Your task to perform on an android device: check data usage Image 0: 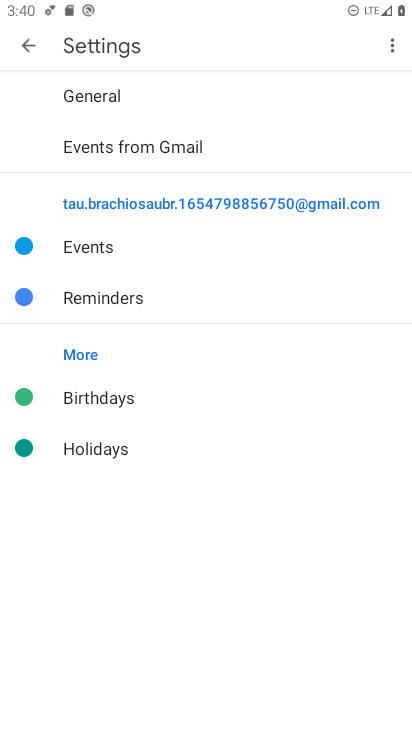
Step 0: press home button
Your task to perform on an android device: check data usage Image 1: 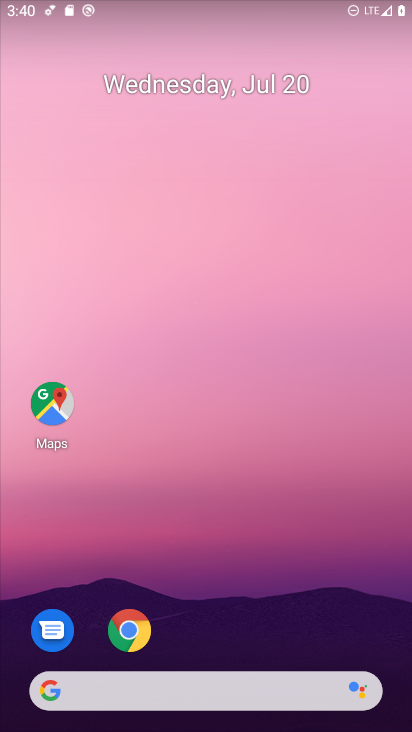
Step 1: drag from (220, 427) to (219, 30)
Your task to perform on an android device: check data usage Image 2: 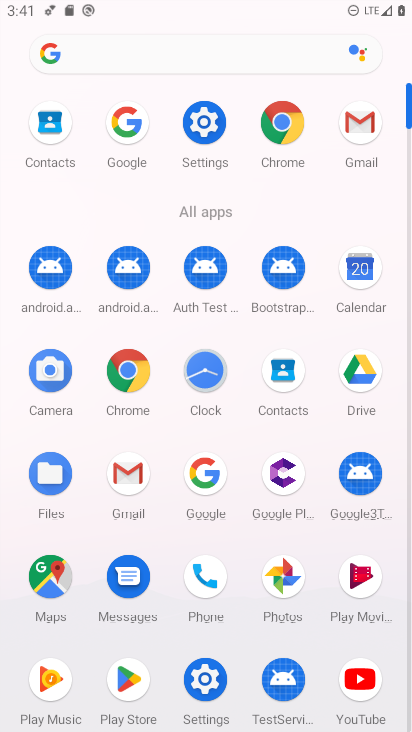
Step 2: click (203, 112)
Your task to perform on an android device: check data usage Image 3: 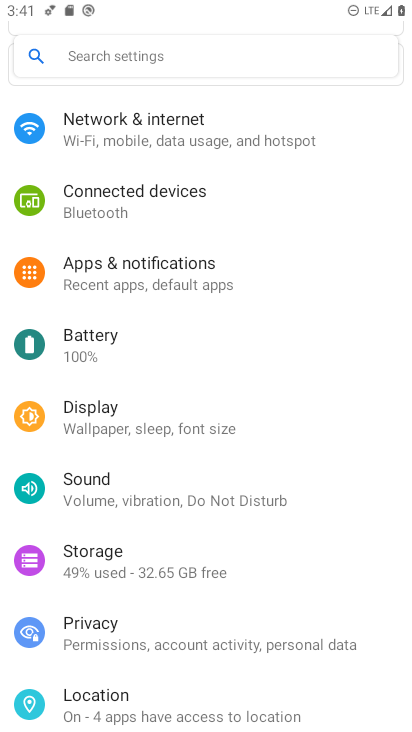
Step 3: click (141, 91)
Your task to perform on an android device: check data usage Image 4: 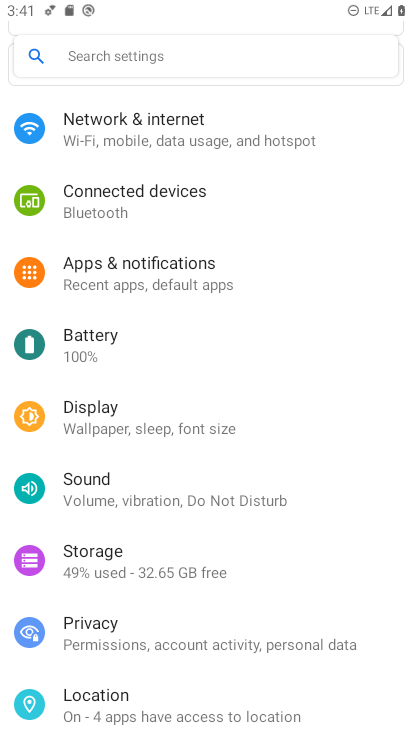
Step 4: click (166, 138)
Your task to perform on an android device: check data usage Image 5: 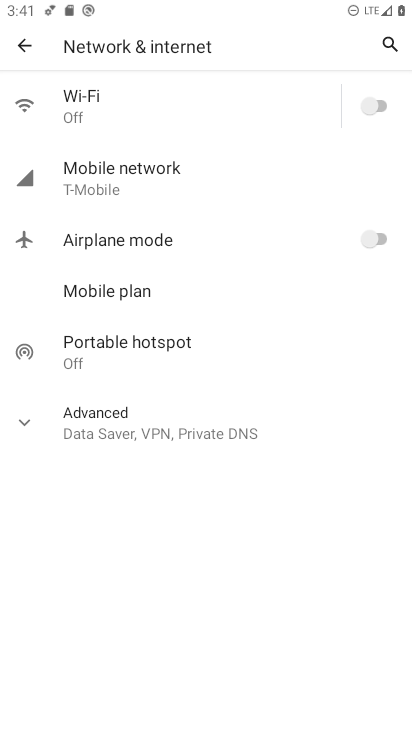
Step 5: click (121, 182)
Your task to perform on an android device: check data usage Image 6: 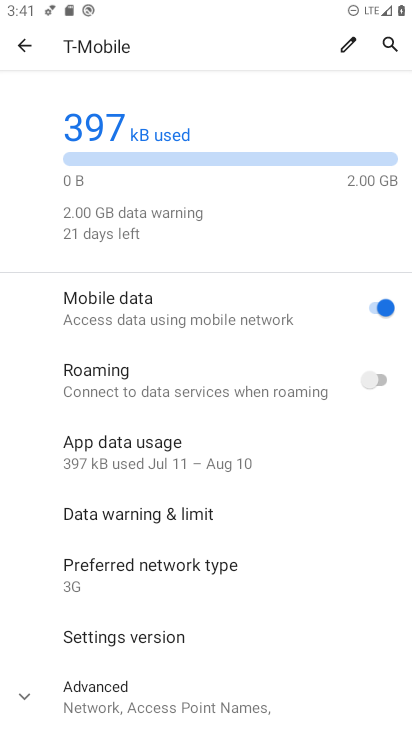
Step 6: click (142, 439)
Your task to perform on an android device: check data usage Image 7: 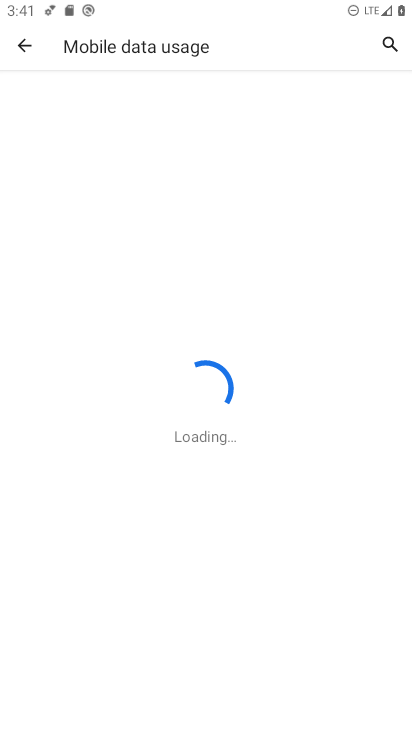
Step 7: task complete